Your task to perform on an android device: Search for Italian restaurants on Maps Image 0: 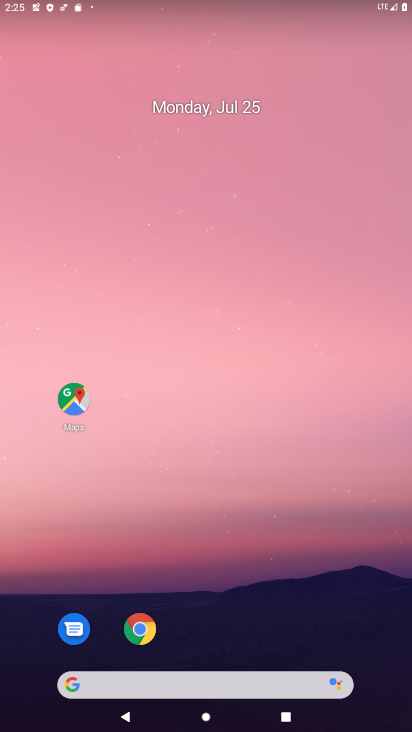
Step 0: drag from (219, 606) to (243, 94)
Your task to perform on an android device: Search for Italian restaurants on Maps Image 1: 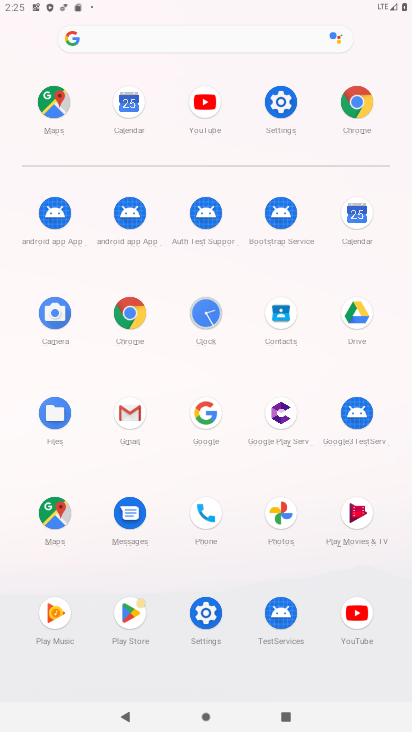
Step 1: drag from (234, 612) to (240, 183)
Your task to perform on an android device: Search for Italian restaurants on Maps Image 2: 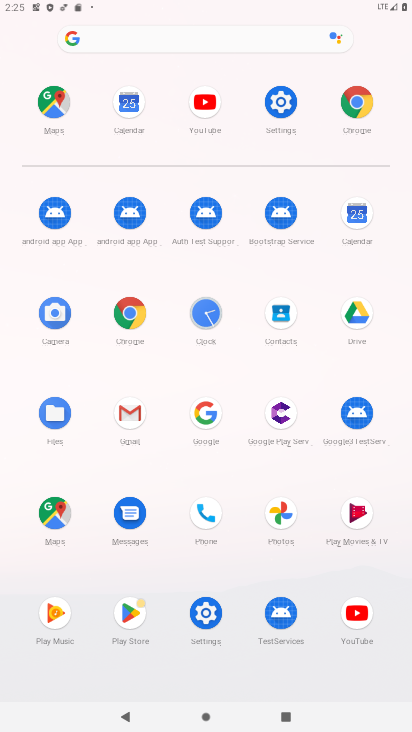
Step 2: click (40, 506)
Your task to perform on an android device: Search for Italian restaurants on Maps Image 3: 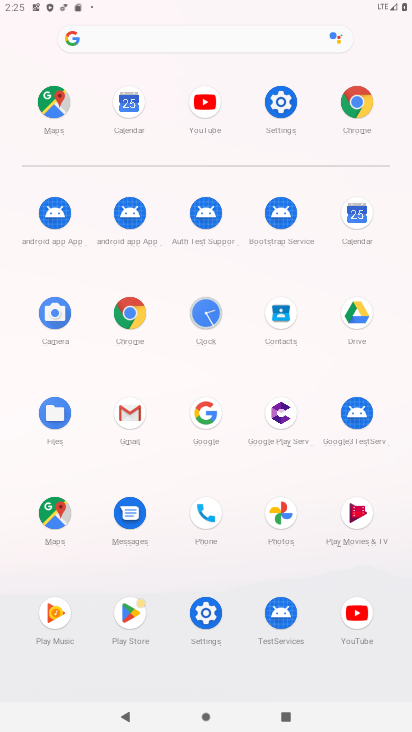
Step 3: click (64, 518)
Your task to perform on an android device: Search for Italian restaurants on Maps Image 4: 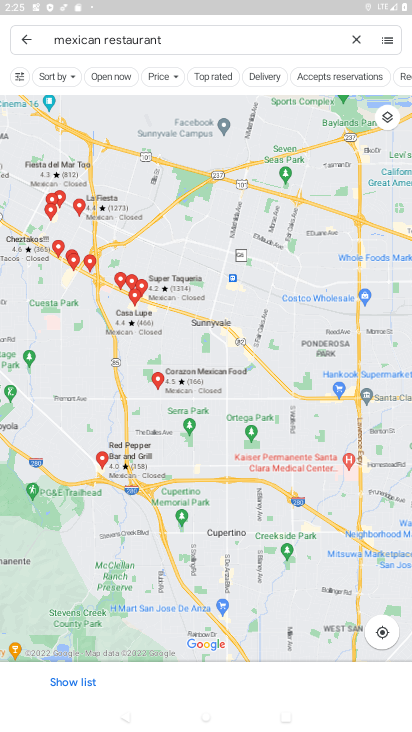
Step 4: click (357, 38)
Your task to perform on an android device: Search for Italian restaurants on Maps Image 5: 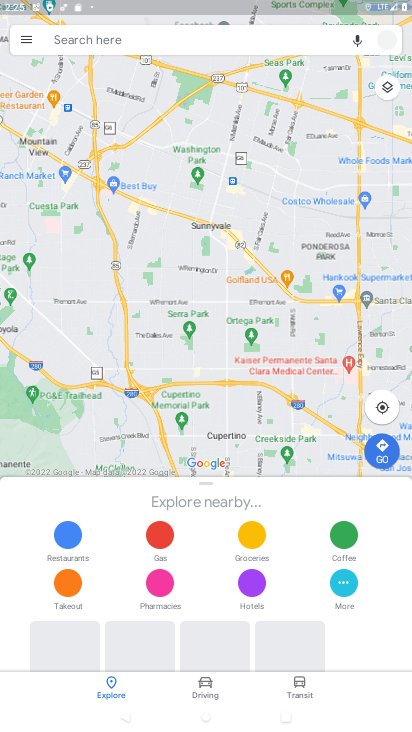
Step 5: click (87, 40)
Your task to perform on an android device: Search for Italian restaurants on Maps Image 6: 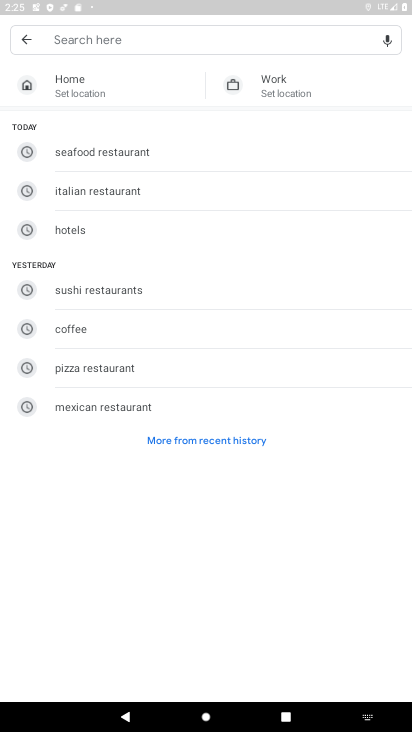
Step 6: click (100, 49)
Your task to perform on an android device: Search for Italian restaurants on Maps Image 7: 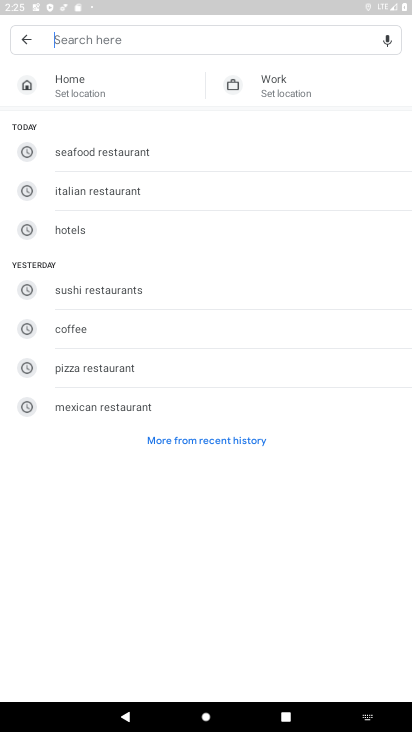
Step 7: type "Italian restaurants"
Your task to perform on an android device: Search for Italian restaurants on Maps Image 8: 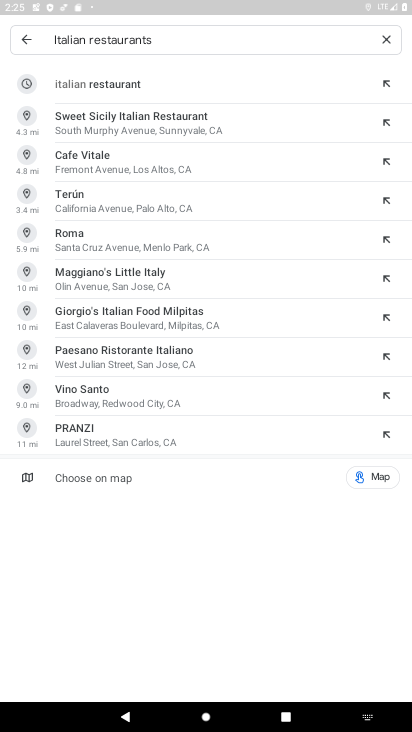
Step 8: click (104, 86)
Your task to perform on an android device: Search for Italian restaurants on Maps Image 9: 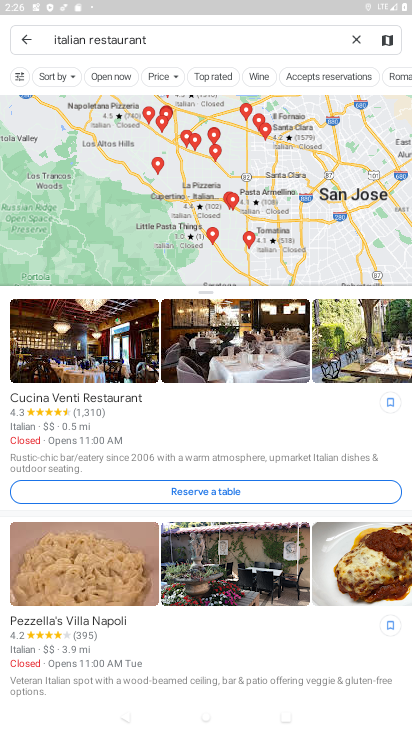
Step 9: task complete